Your task to perform on an android device: open app "Messenger Lite" (install if not already installed) Image 0: 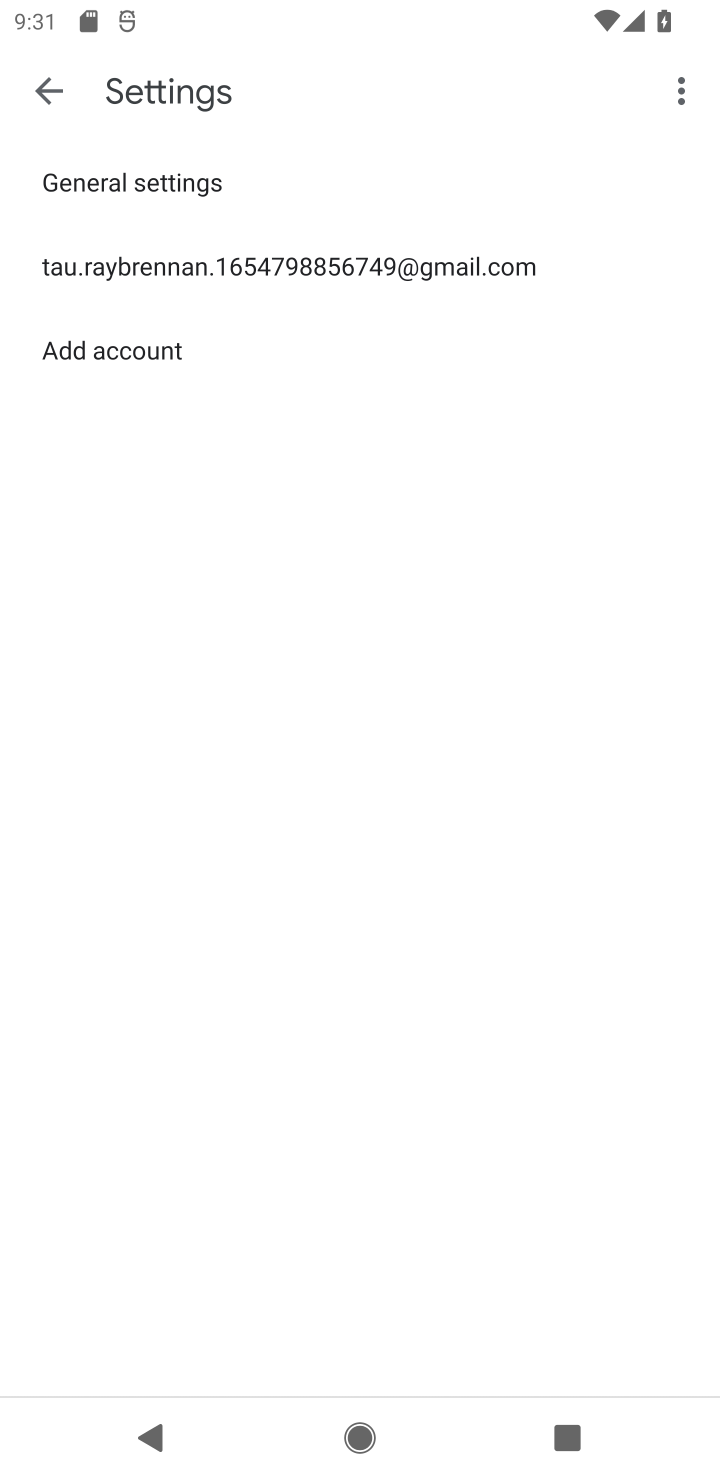
Step 0: press home button
Your task to perform on an android device: open app "Messenger Lite" (install if not already installed) Image 1: 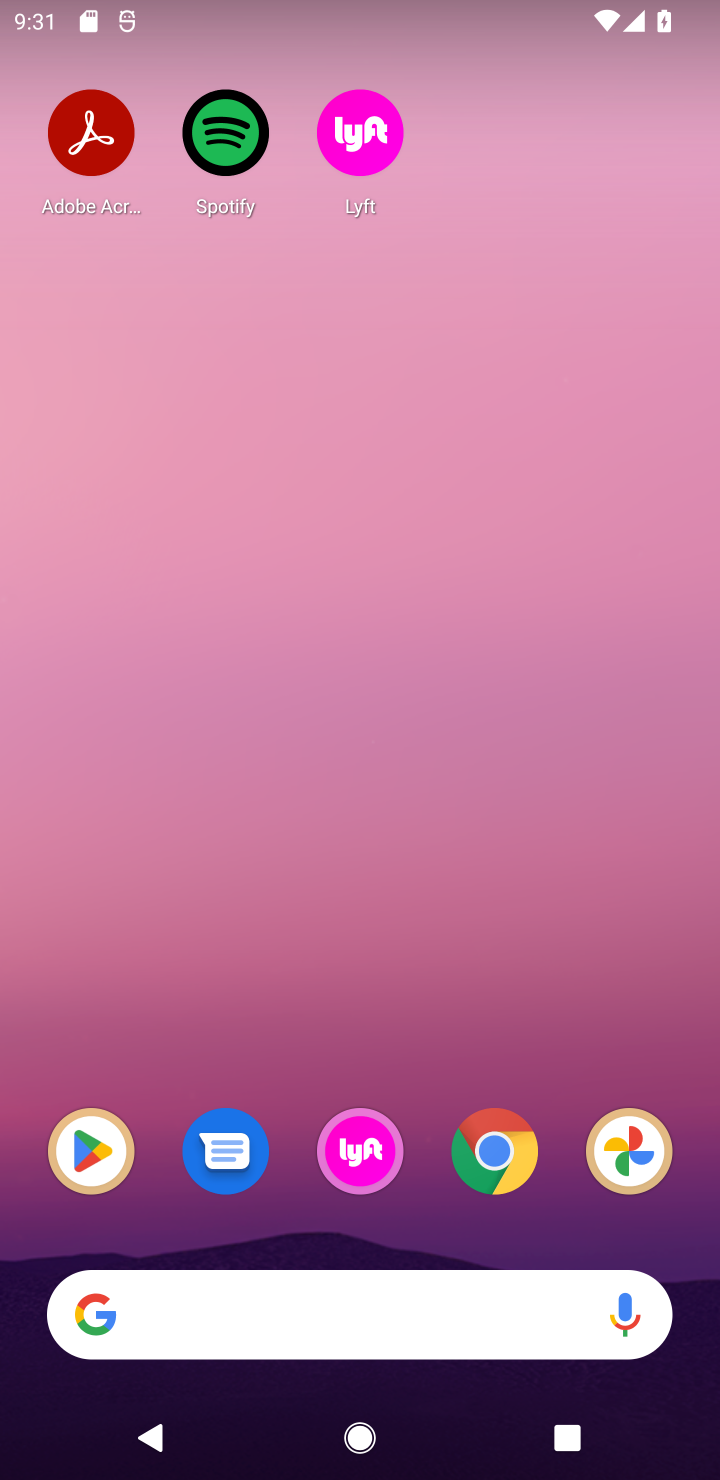
Step 1: drag from (328, 1267) to (261, 662)
Your task to perform on an android device: open app "Messenger Lite" (install if not already installed) Image 2: 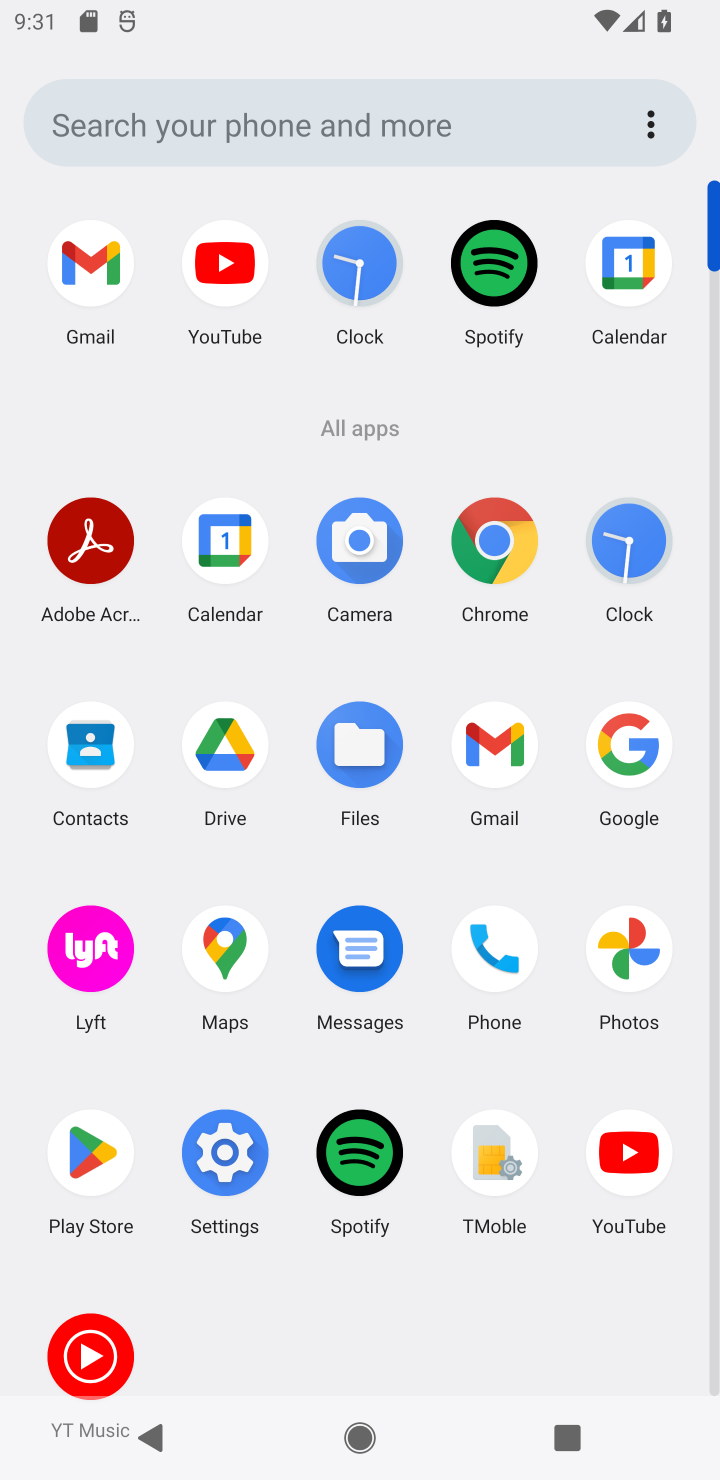
Step 2: click (78, 1156)
Your task to perform on an android device: open app "Messenger Lite" (install if not already installed) Image 3: 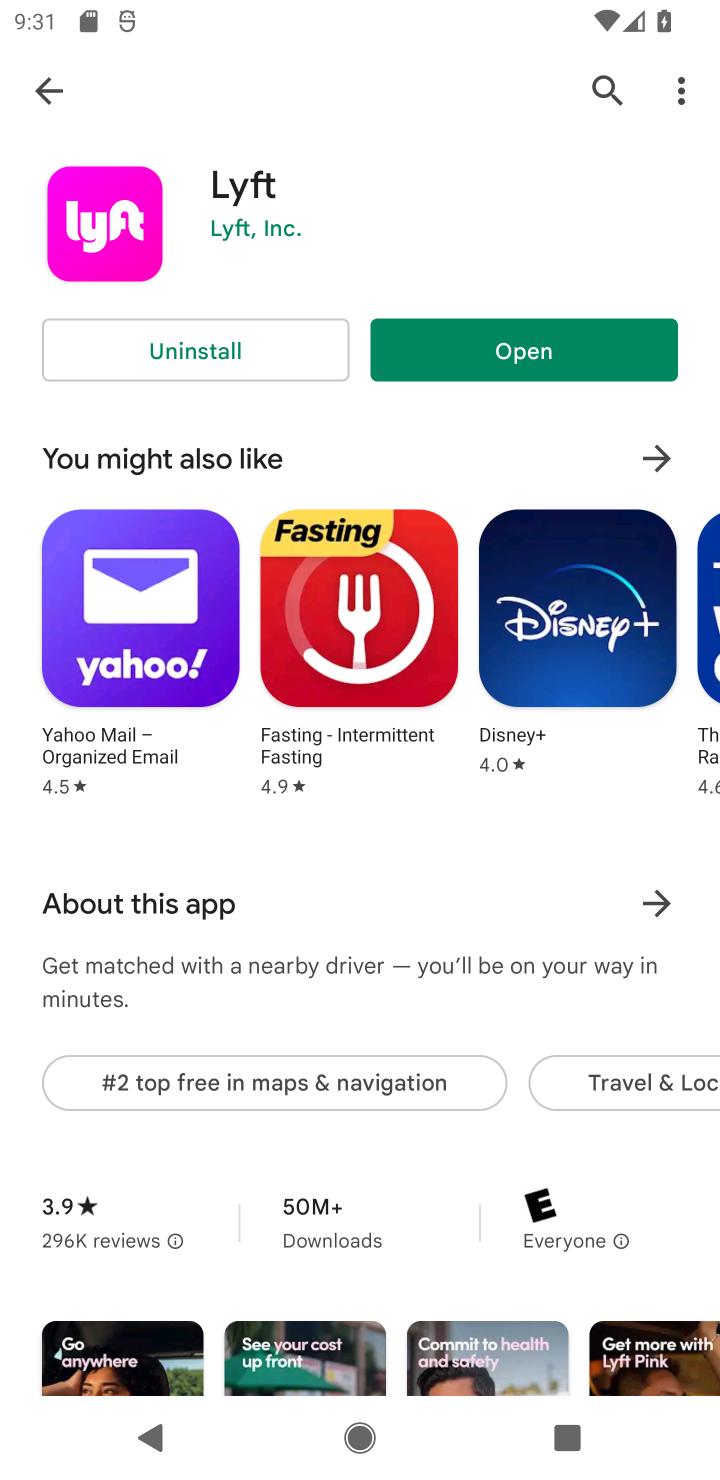
Step 3: click (45, 98)
Your task to perform on an android device: open app "Messenger Lite" (install if not already installed) Image 4: 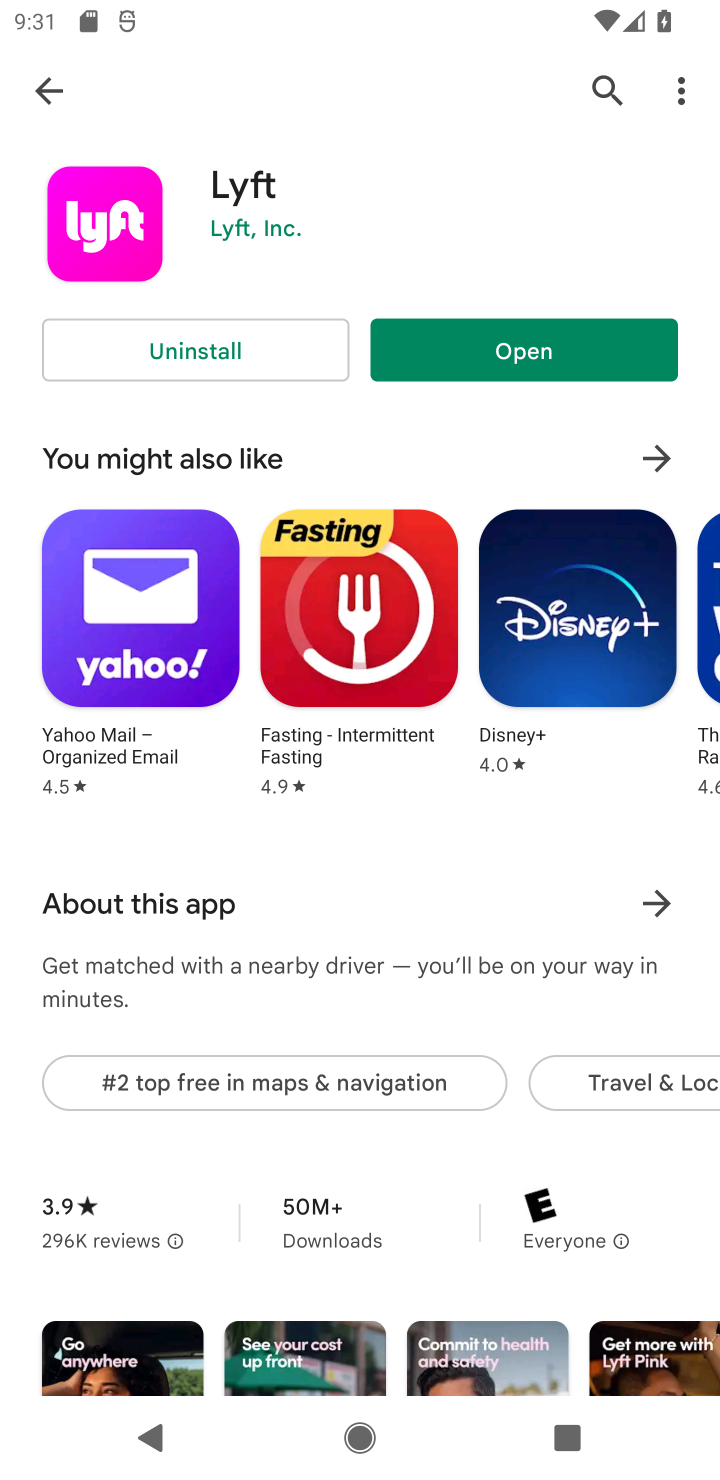
Step 4: click (36, 89)
Your task to perform on an android device: open app "Messenger Lite" (install if not already installed) Image 5: 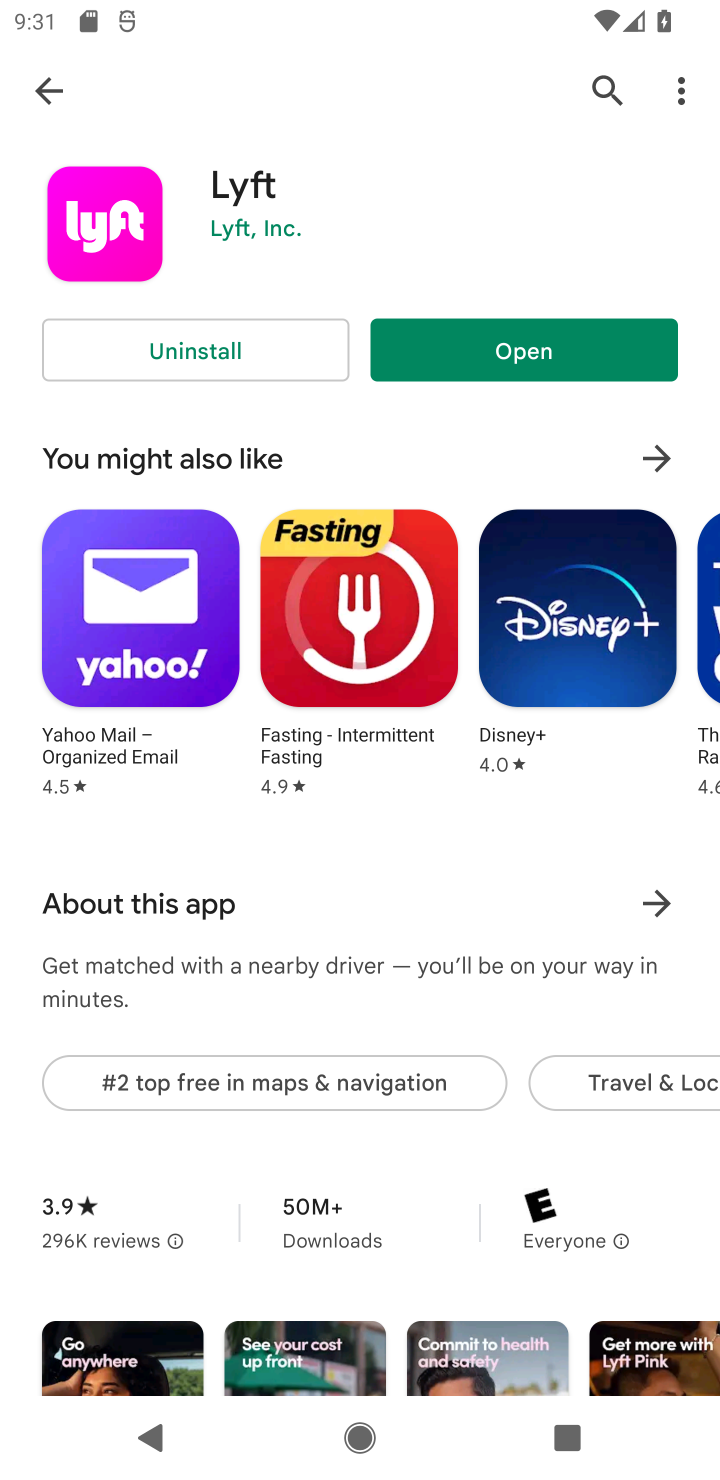
Step 5: click (34, 86)
Your task to perform on an android device: open app "Messenger Lite" (install if not already installed) Image 6: 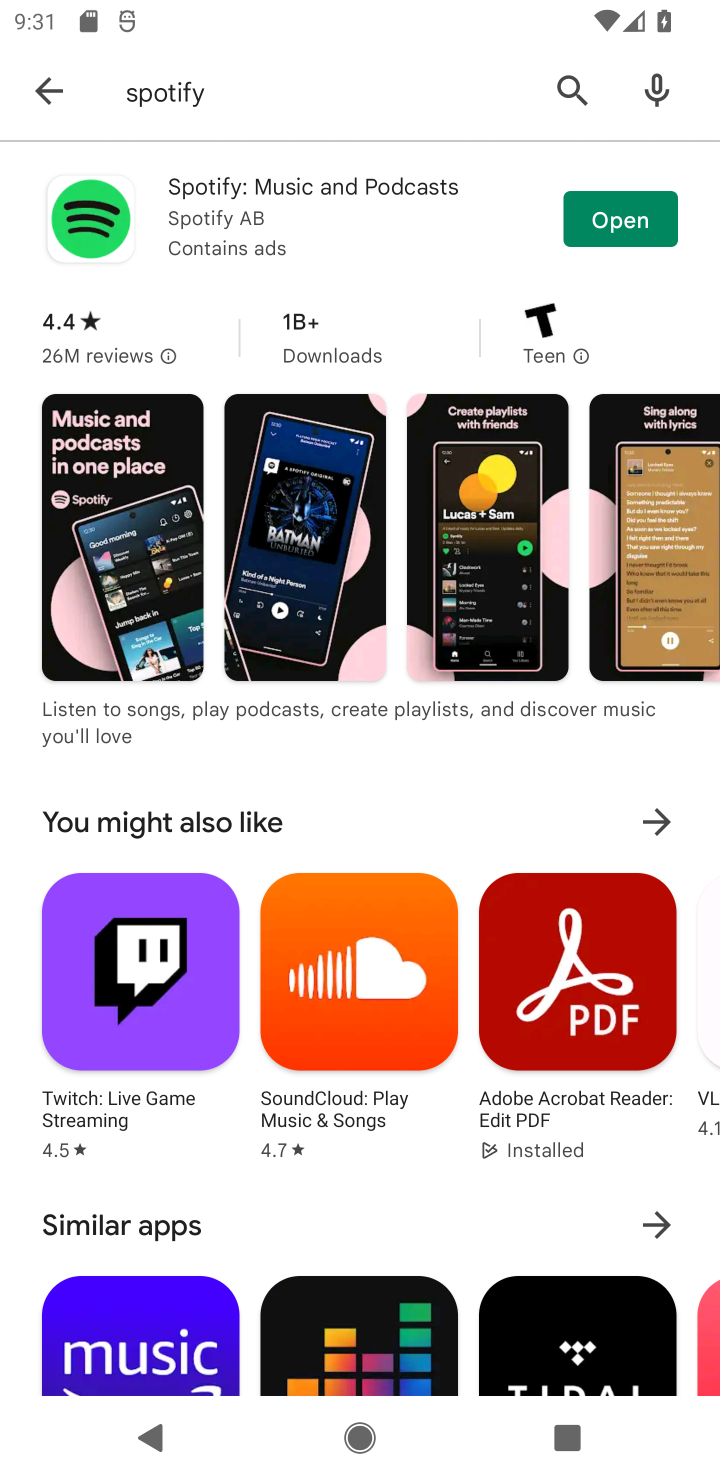
Step 6: click (561, 85)
Your task to perform on an android device: open app "Messenger Lite" (install if not already installed) Image 7: 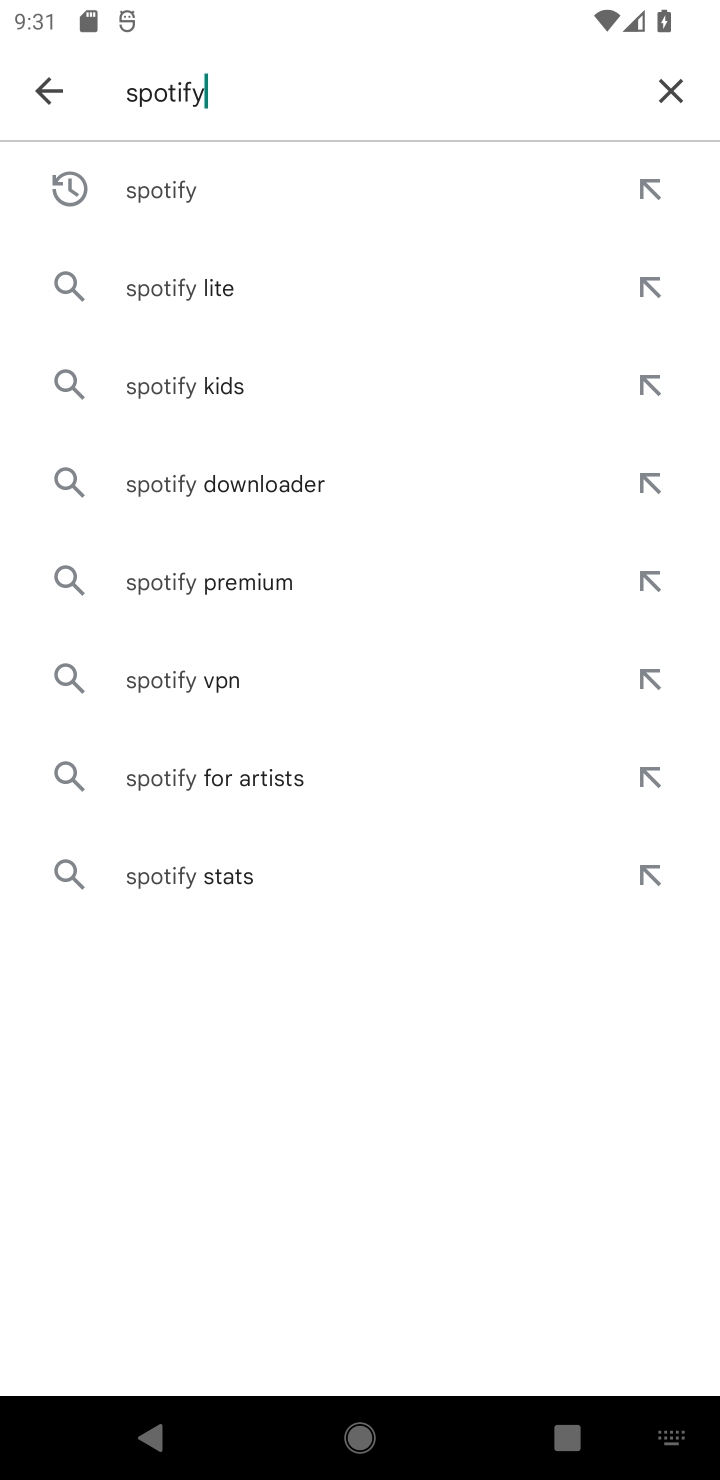
Step 7: click (680, 86)
Your task to perform on an android device: open app "Messenger Lite" (install if not already installed) Image 8: 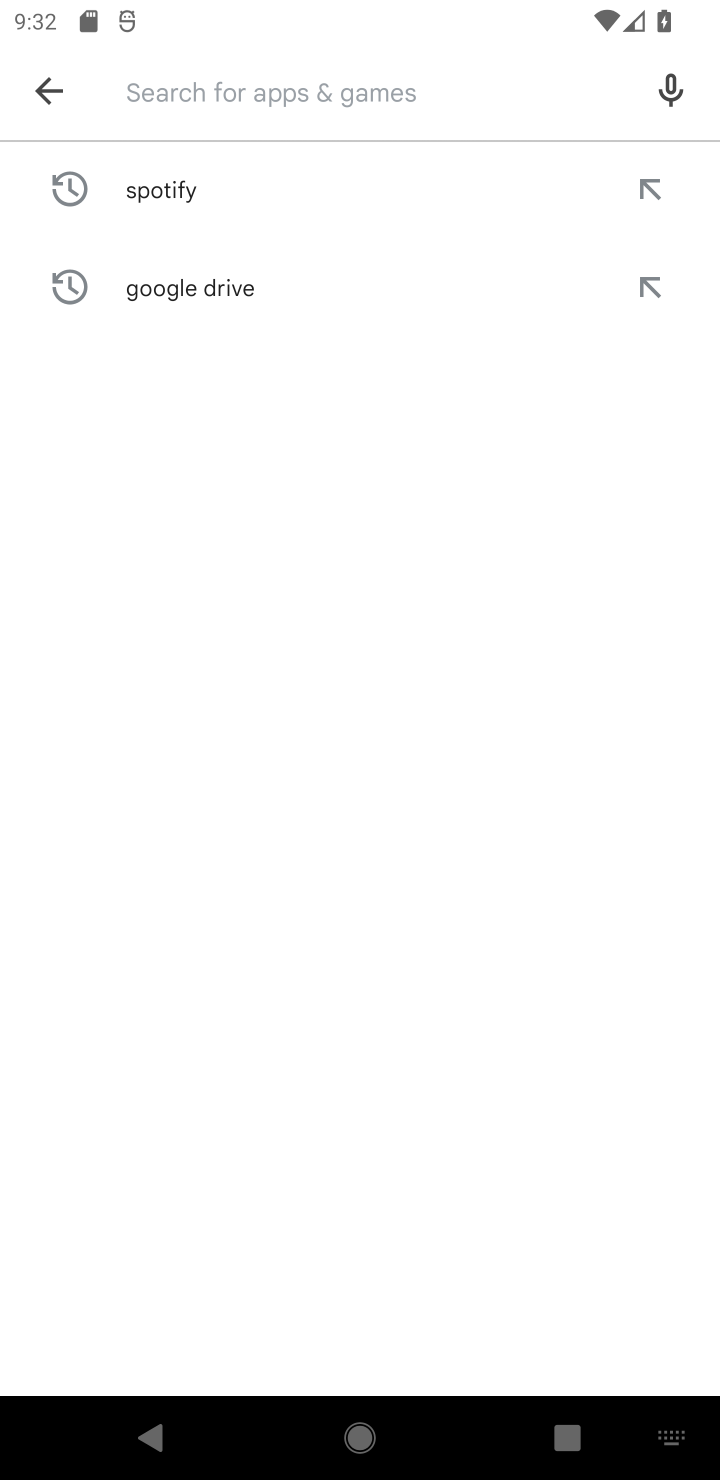
Step 8: type "Messenger Lite"
Your task to perform on an android device: open app "Messenger Lite" (install if not already installed) Image 9: 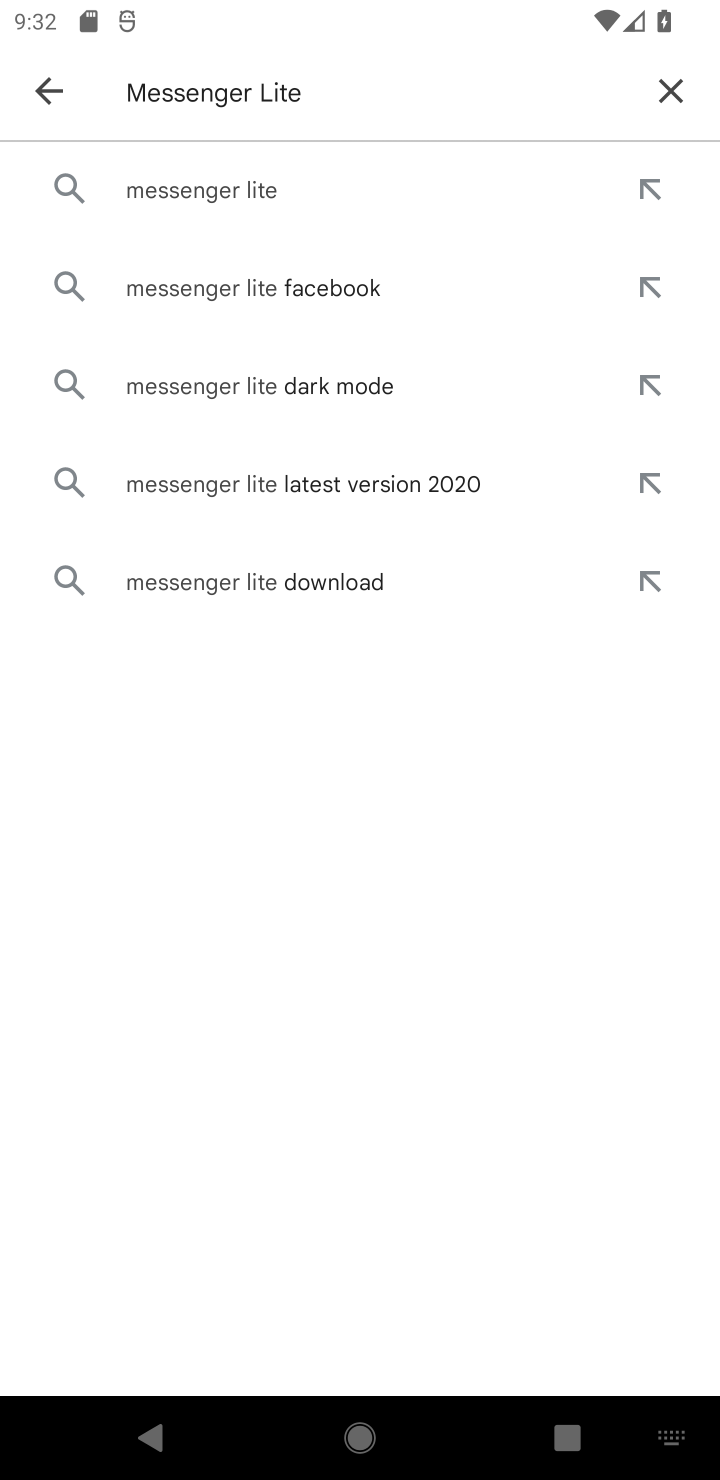
Step 9: click (226, 186)
Your task to perform on an android device: open app "Messenger Lite" (install if not already installed) Image 10: 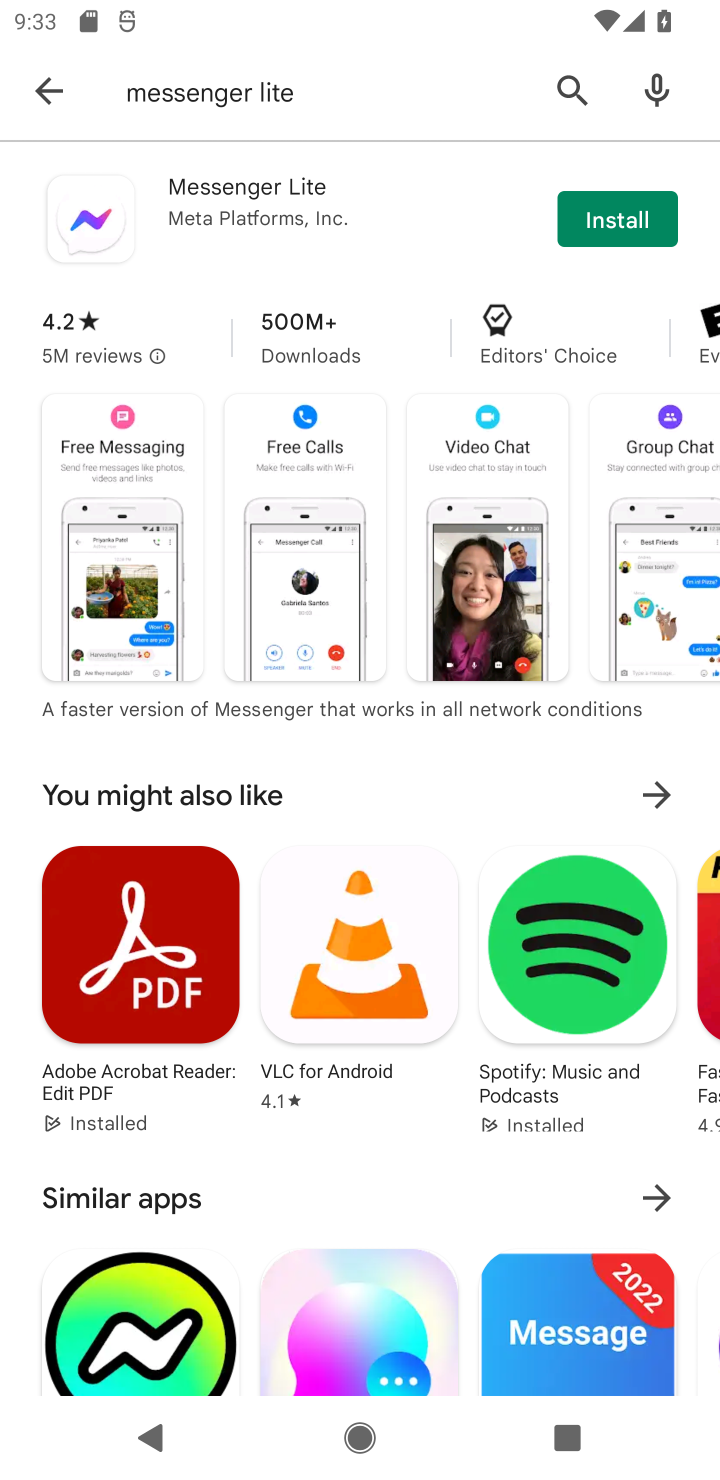
Step 10: click (671, 215)
Your task to perform on an android device: open app "Messenger Lite" (install if not already installed) Image 11: 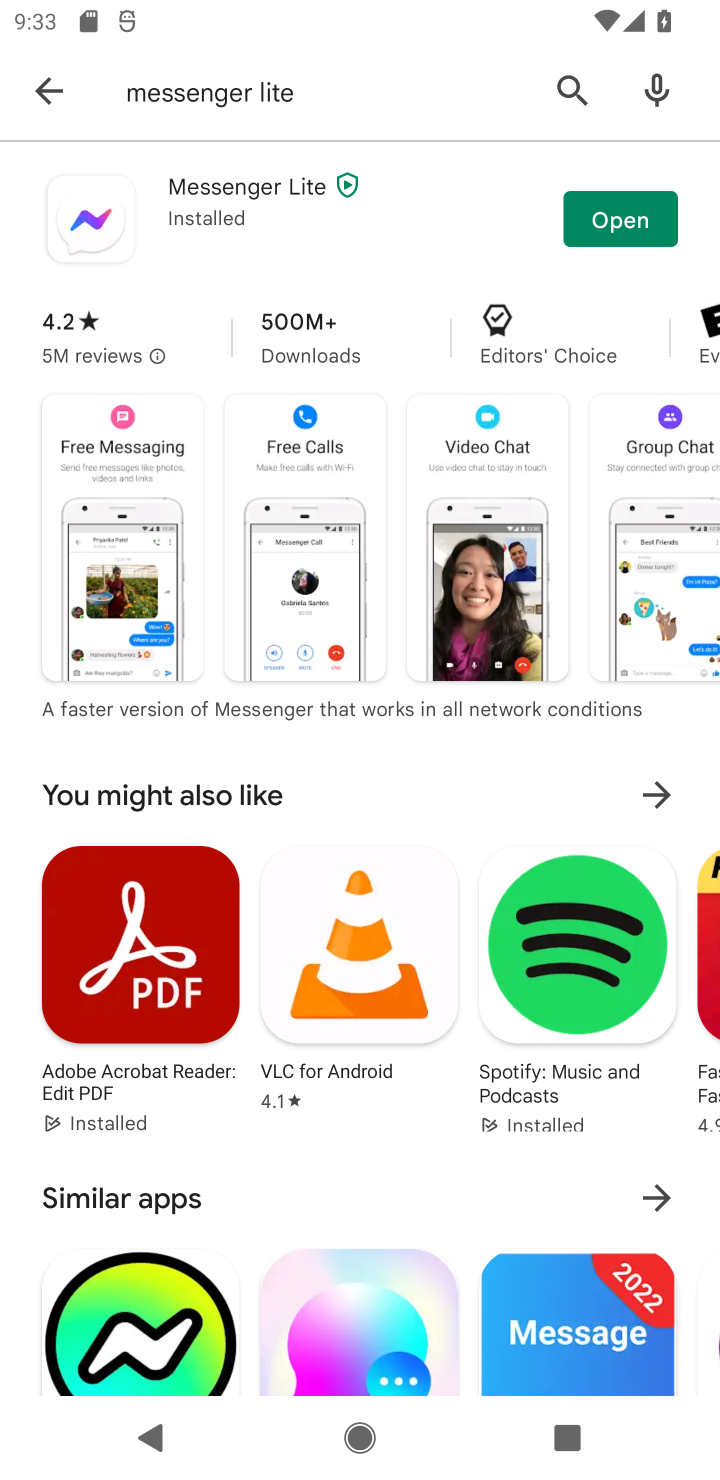
Step 11: click (651, 229)
Your task to perform on an android device: open app "Messenger Lite" (install if not already installed) Image 12: 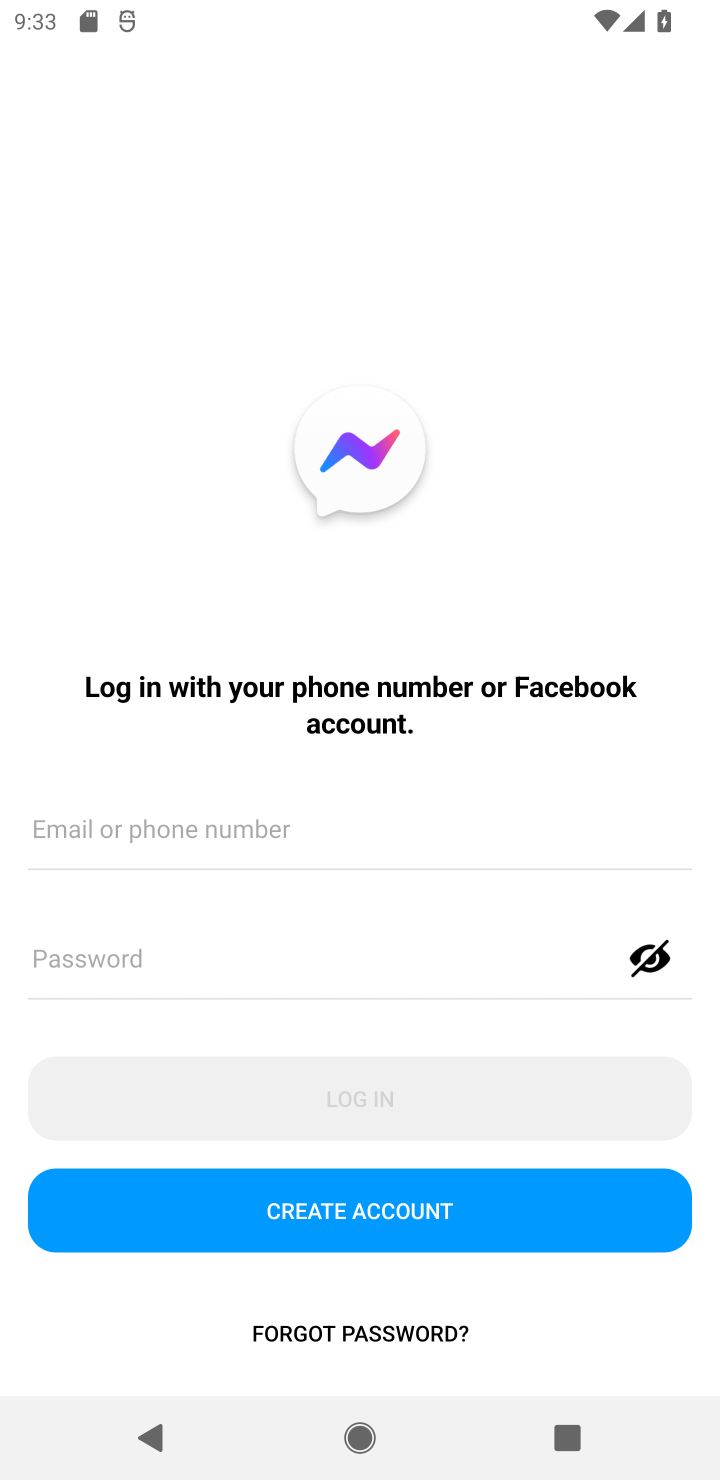
Step 12: task complete